Your task to perform on an android device: turn off notifications settings in the gmail app Image 0: 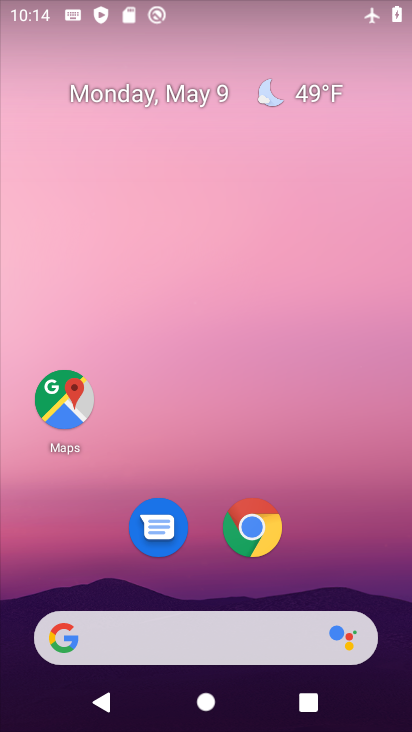
Step 0: drag from (325, 575) to (193, 0)
Your task to perform on an android device: turn off notifications settings in the gmail app Image 1: 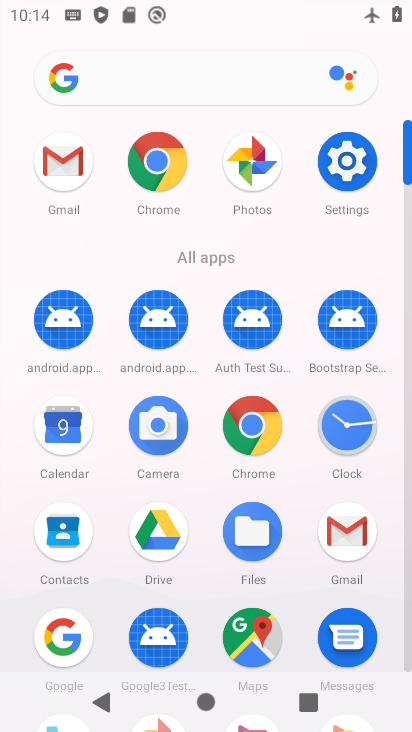
Step 1: click (62, 161)
Your task to perform on an android device: turn off notifications settings in the gmail app Image 2: 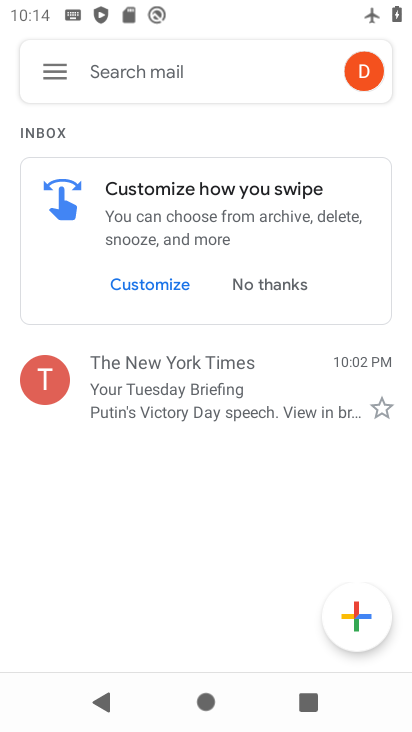
Step 2: click (49, 81)
Your task to perform on an android device: turn off notifications settings in the gmail app Image 3: 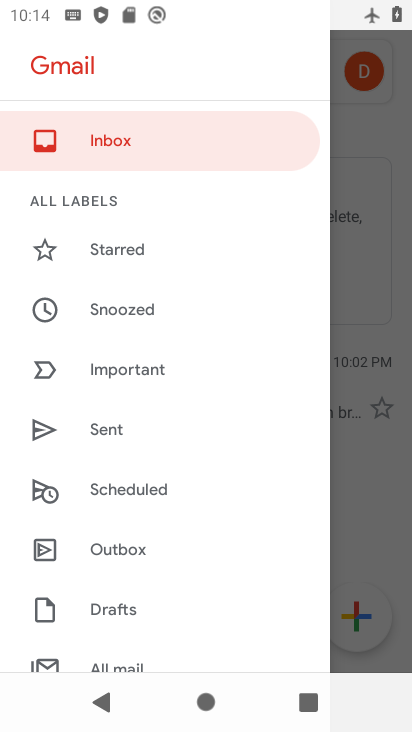
Step 3: drag from (153, 538) to (189, 433)
Your task to perform on an android device: turn off notifications settings in the gmail app Image 4: 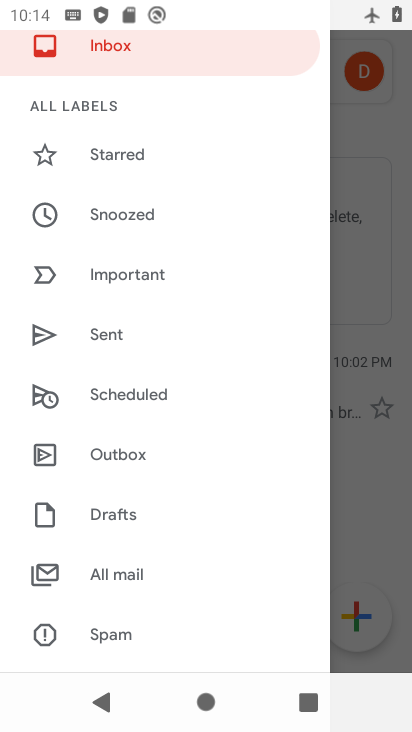
Step 4: drag from (125, 537) to (171, 444)
Your task to perform on an android device: turn off notifications settings in the gmail app Image 5: 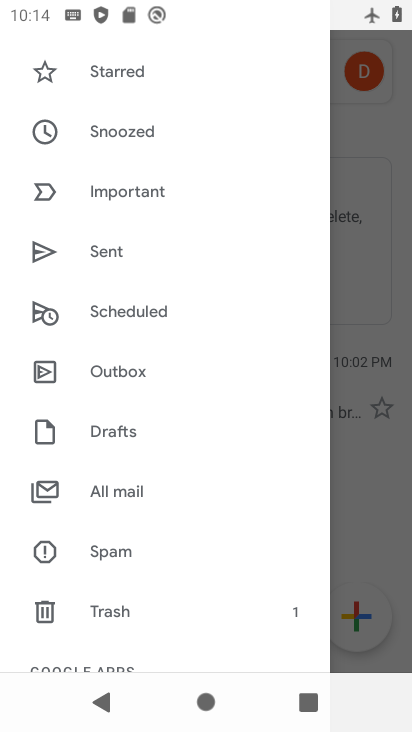
Step 5: drag from (117, 527) to (176, 415)
Your task to perform on an android device: turn off notifications settings in the gmail app Image 6: 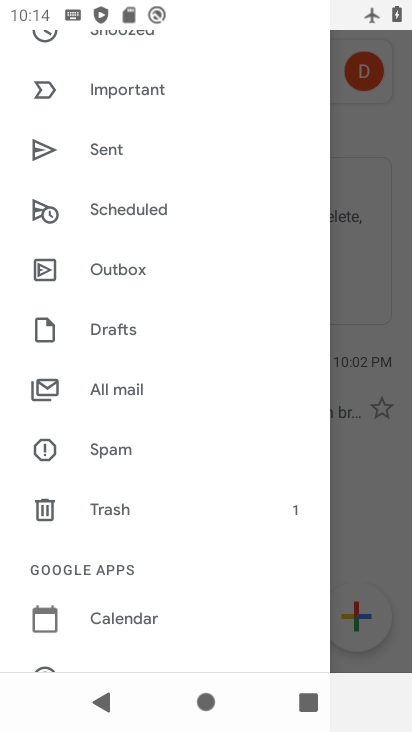
Step 6: drag from (127, 550) to (152, 458)
Your task to perform on an android device: turn off notifications settings in the gmail app Image 7: 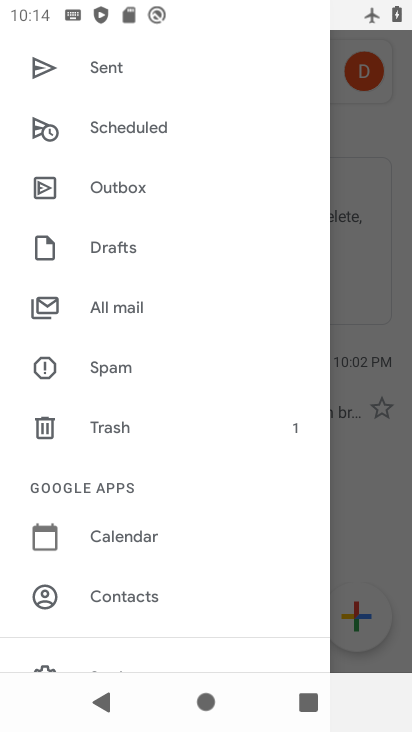
Step 7: drag from (117, 561) to (157, 438)
Your task to perform on an android device: turn off notifications settings in the gmail app Image 8: 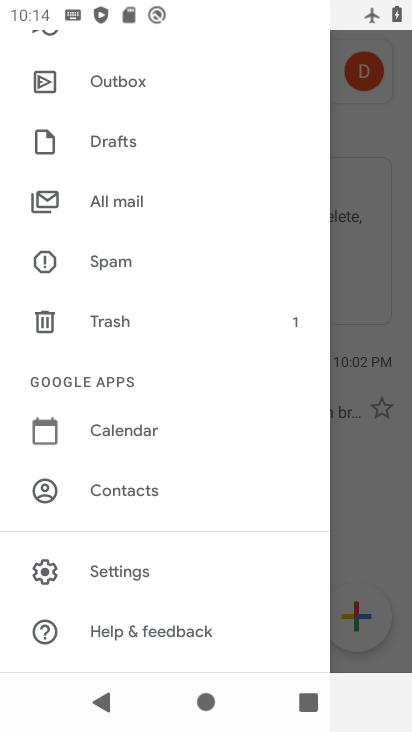
Step 8: click (113, 571)
Your task to perform on an android device: turn off notifications settings in the gmail app Image 9: 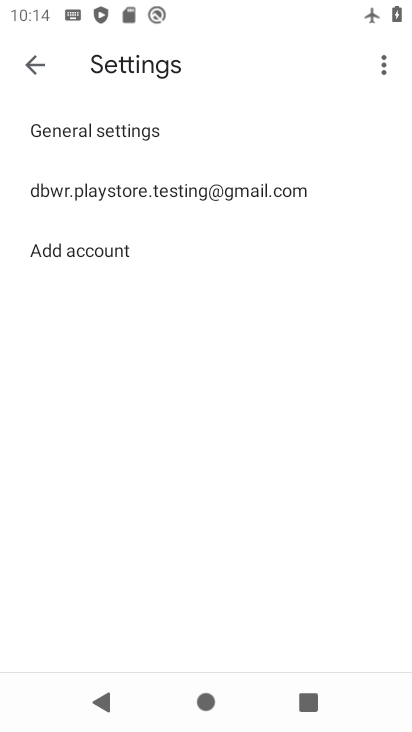
Step 9: click (156, 187)
Your task to perform on an android device: turn off notifications settings in the gmail app Image 10: 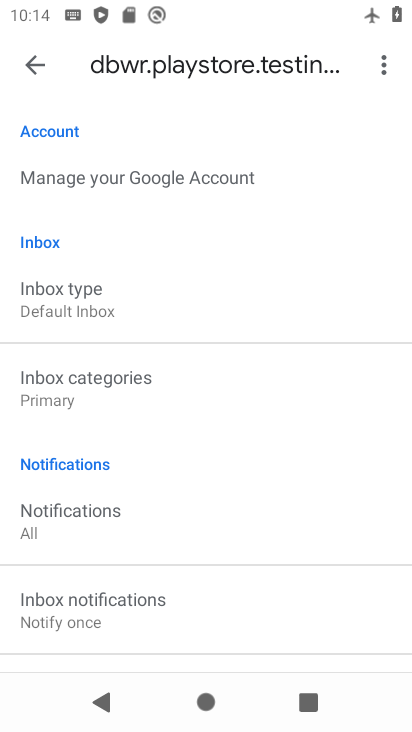
Step 10: drag from (121, 526) to (171, 410)
Your task to perform on an android device: turn off notifications settings in the gmail app Image 11: 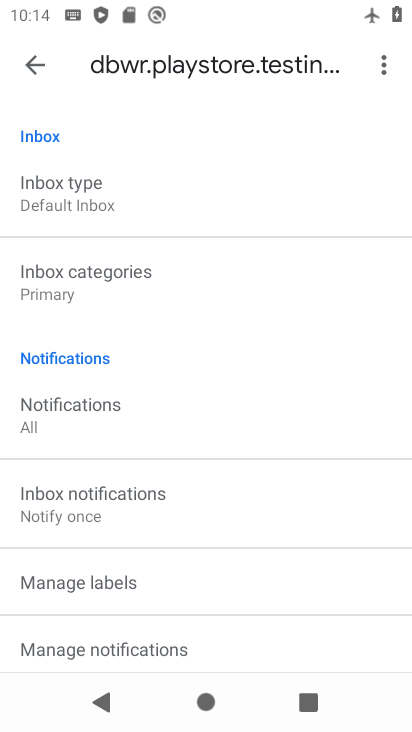
Step 11: drag from (136, 544) to (206, 412)
Your task to perform on an android device: turn off notifications settings in the gmail app Image 12: 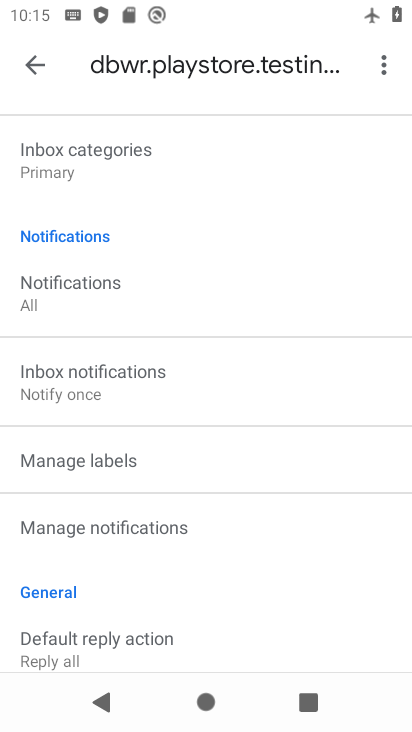
Step 12: click (147, 530)
Your task to perform on an android device: turn off notifications settings in the gmail app Image 13: 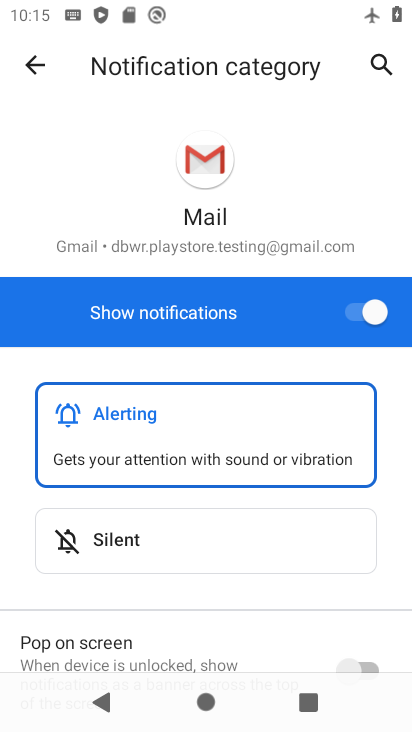
Step 13: click (367, 309)
Your task to perform on an android device: turn off notifications settings in the gmail app Image 14: 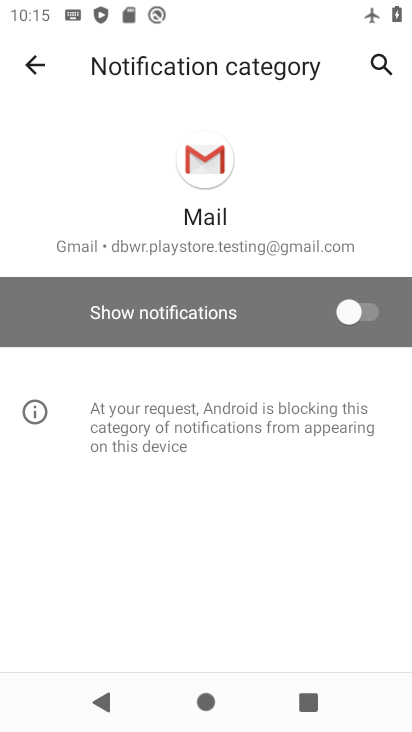
Step 14: task complete